Your task to perform on an android device: What's on my calendar tomorrow? Image 0: 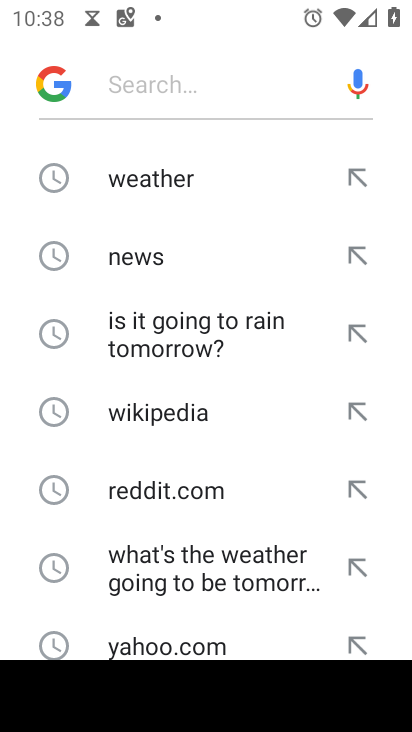
Step 0: press back button
Your task to perform on an android device: What's on my calendar tomorrow? Image 1: 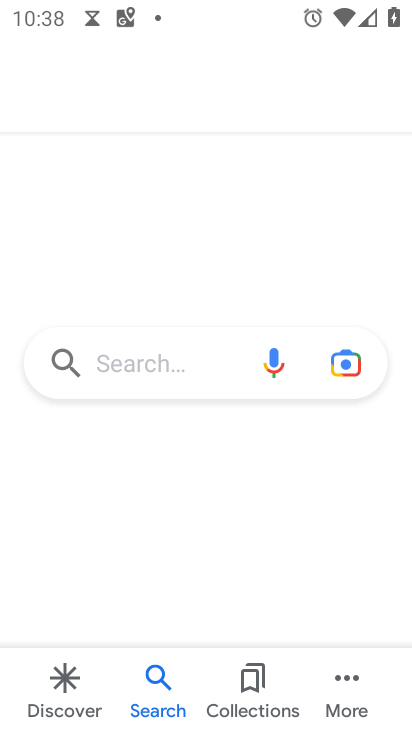
Step 1: press back button
Your task to perform on an android device: What's on my calendar tomorrow? Image 2: 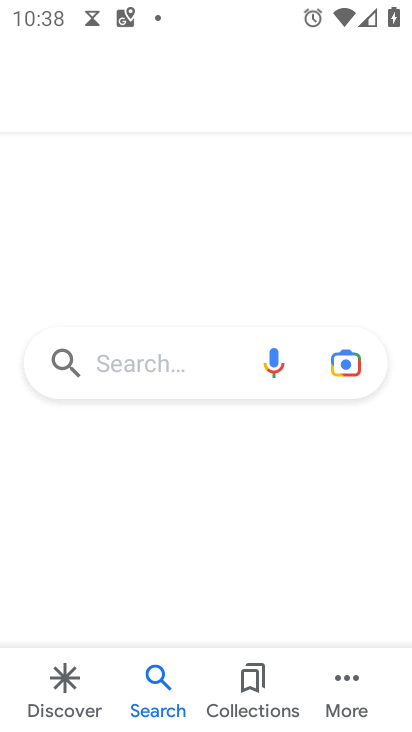
Step 2: press back button
Your task to perform on an android device: What's on my calendar tomorrow? Image 3: 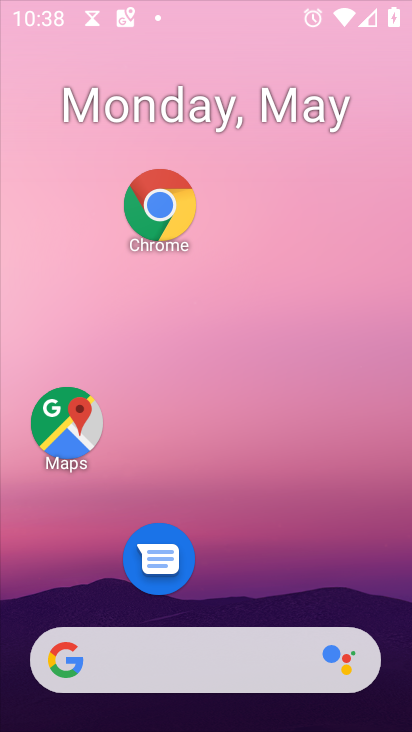
Step 3: press back button
Your task to perform on an android device: What's on my calendar tomorrow? Image 4: 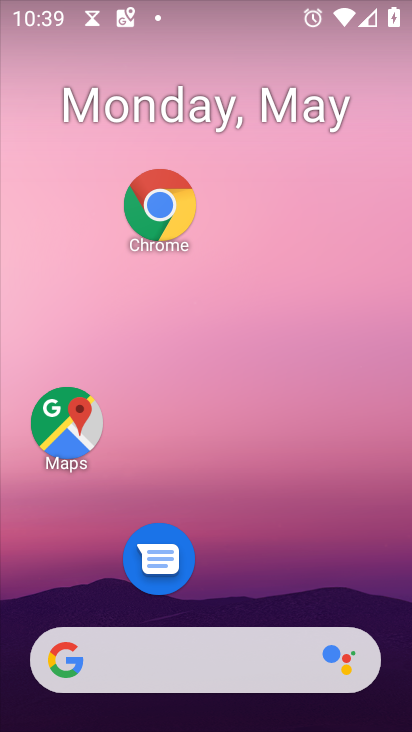
Step 4: press home button
Your task to perform on an android device: What's on my calendar tomorrow? Image 5: 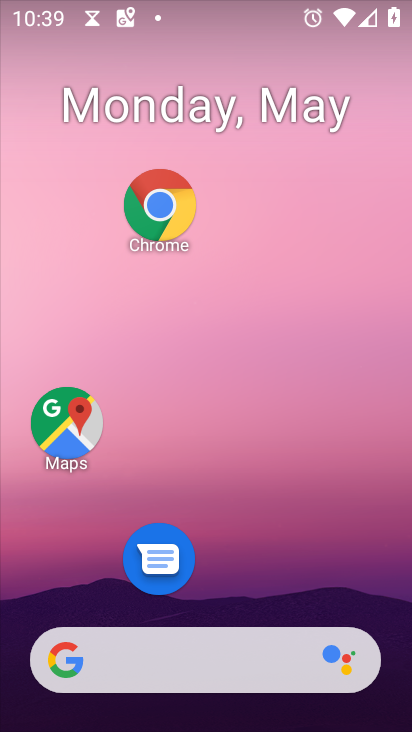
Step 5: drag from (268, 634) to (285, 158)
Your task to perform on an android device: What's on my calendar tomorrow? Image 6: 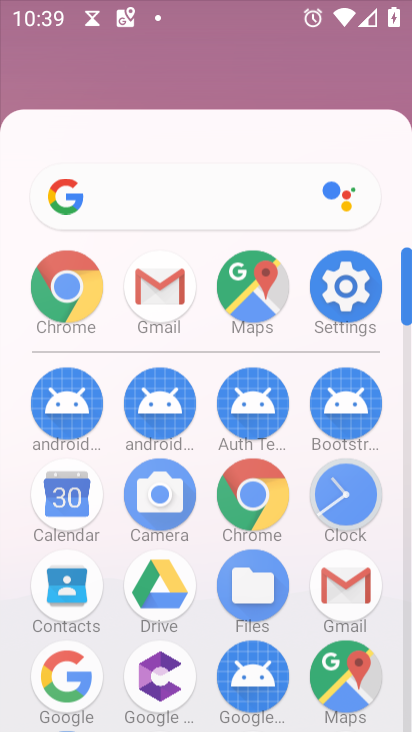
Step 6: drag from (268, 569) to (254, 188)
Your task to perform on an android device: What's on my calendar tomorrow? Image 7: 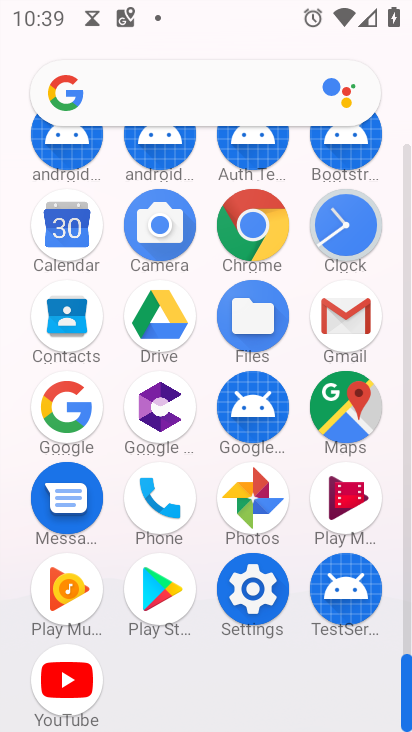
Step 7: press home button
Your task to perform on an android device: What's on my calendar tomorrow? Image 8: 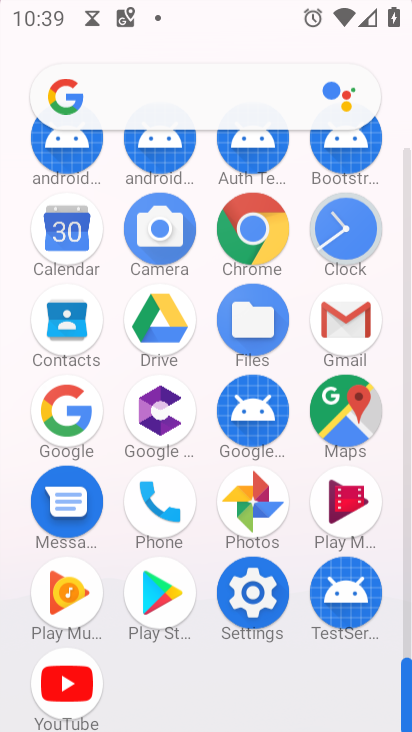
Step 8: press home button
Your task to perform on an android device: What's on my calendar tomorrow? Image 9: 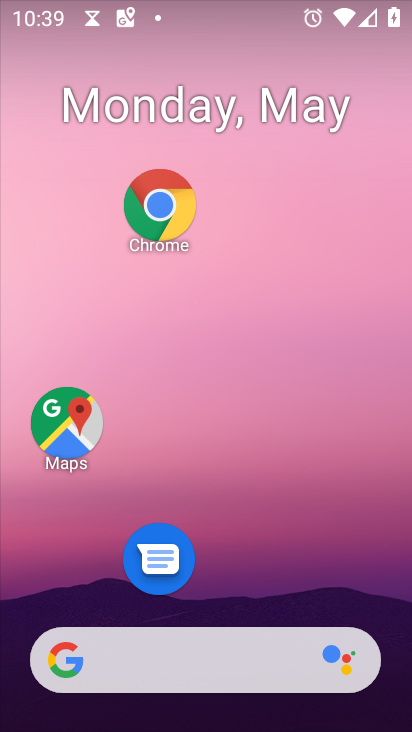
Step 9: drag from (253, 684) to (186, 7)
Your task to perform on an android device: What's on my calendar tomorrow? Image 10: 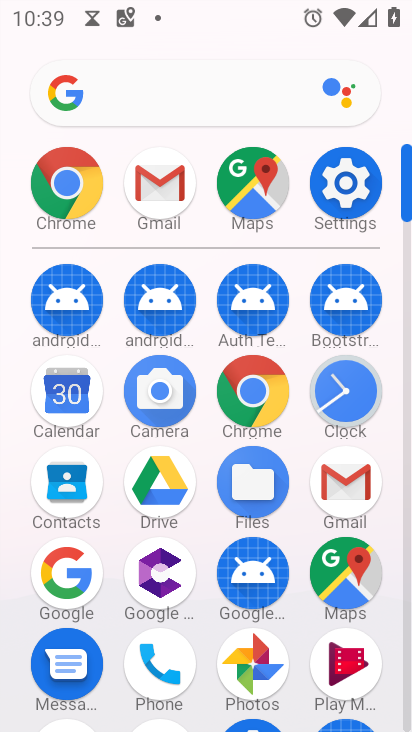
Step 10: click (74, 394)
Your task to perform on an android device: What's on my calendar tomorrow? Image 11: 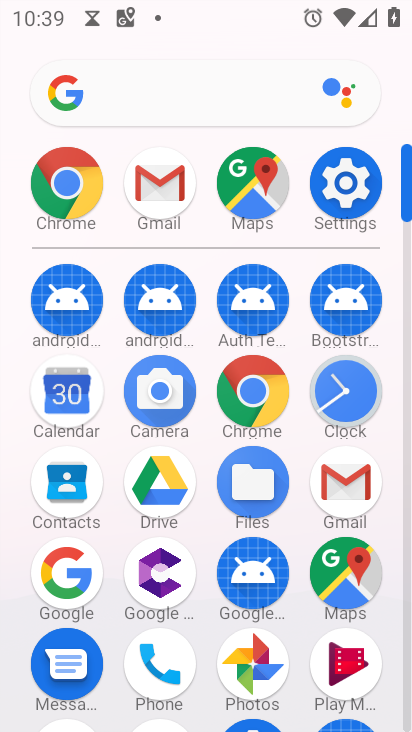
Step 11: click (71, 396)
Your task to perform on an android device: What's on my calendar tomorrow? Image 12: 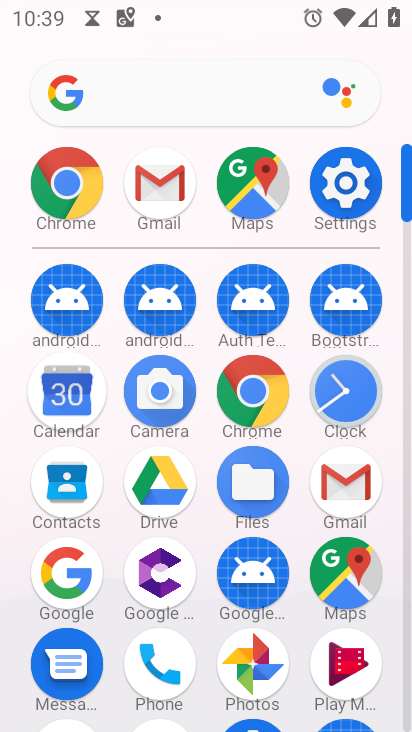
Step 12: click (70, 396)
Your task to perform on an android device: What's on my calendar tomorrow? Image 13: 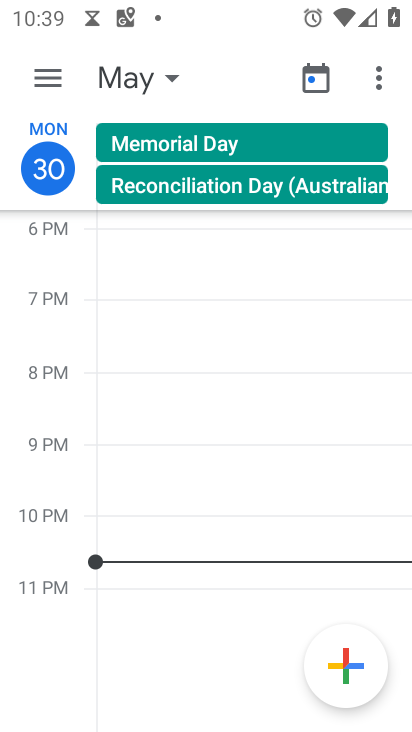
Step 13: click (173, 76)
Your task to perform on an android device: What's on my calendar tomorrow? Image 14: 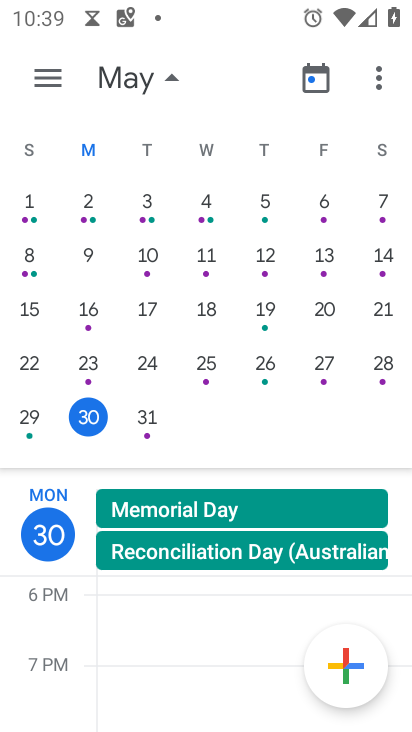
Step 14: click (149, 418)
Your task to perform on an android device: What's on my calendar tomorrow? Image 15: 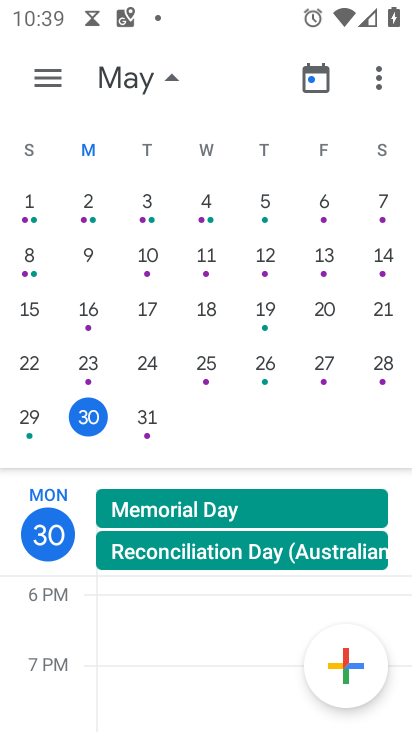
Step 15: click (142, 412)
Your task to perform on an android device: What's on my calendar tomorrow? Image 16: 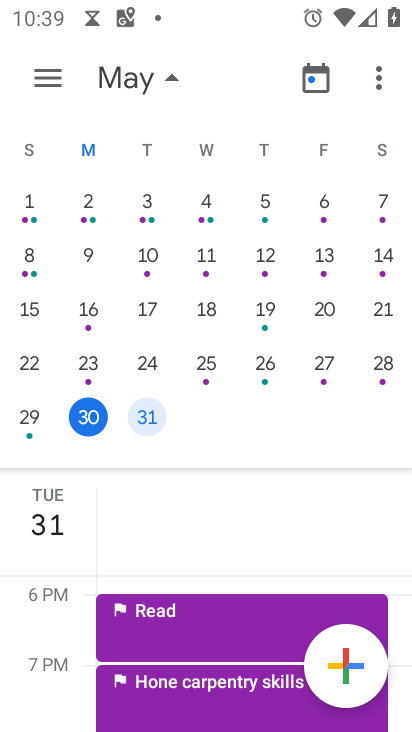
Step 16: click (147, 413)
Your task to perform on an android device: What's on my calendar tomorrow? Image 17: 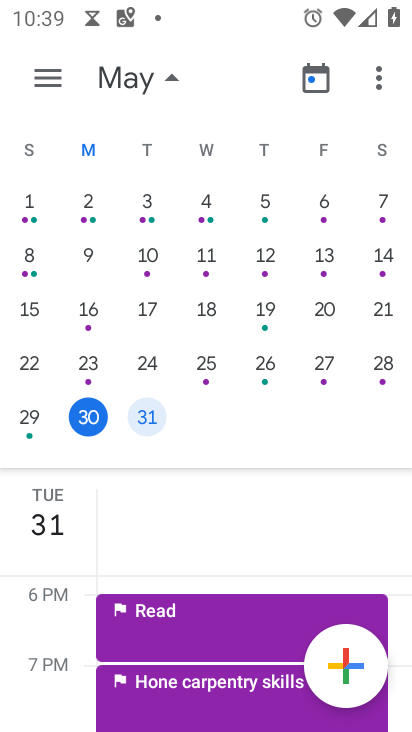
Step 17: click (149, 411)
Your task to perform on an android device: What's on my calendar tomorrow? Image 18: 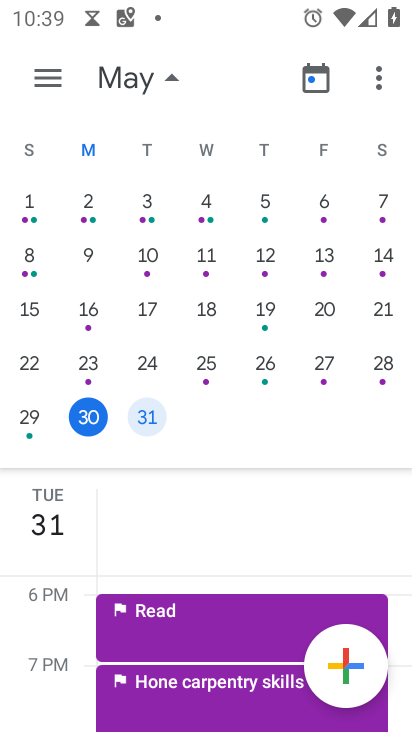
Step 18: task complete